Your task to perform on an android device: delete a single message in the gmail app Image 0: 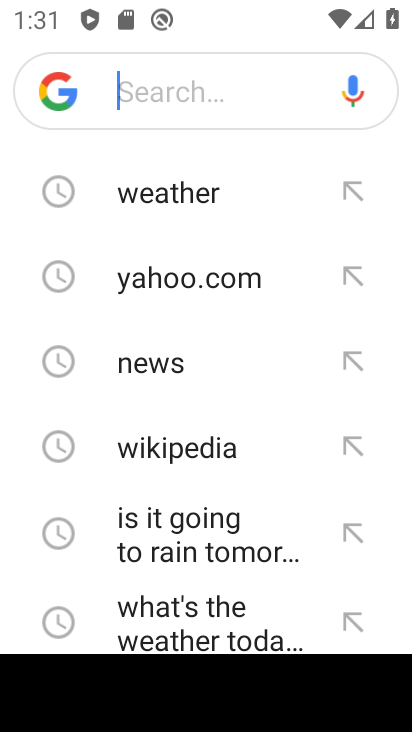
Step 0: press back button
Your task to perform on an android device: delete a single message in the gmail app Image 1: 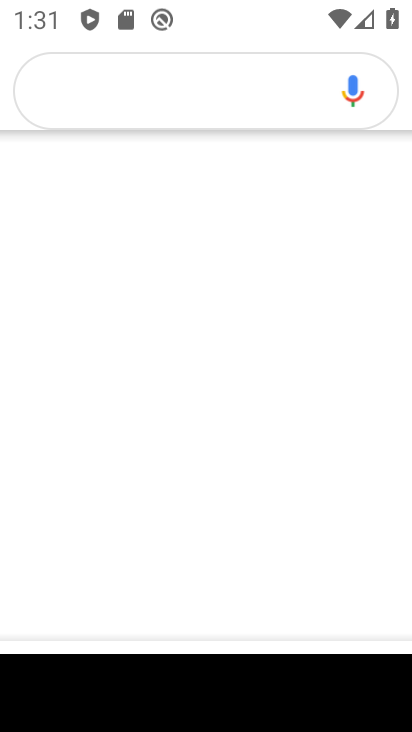
Step 1: press back button
Your task to perform on an android device: delete a single message in the gmail app Image 2: 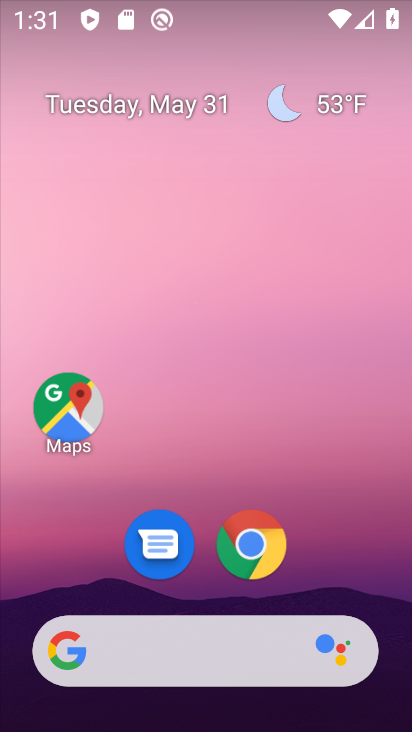
Step 2: drag from (363, 565) to (347, 4)
Your task to perform on an android device: delete a single message in the gmail app Image 3: 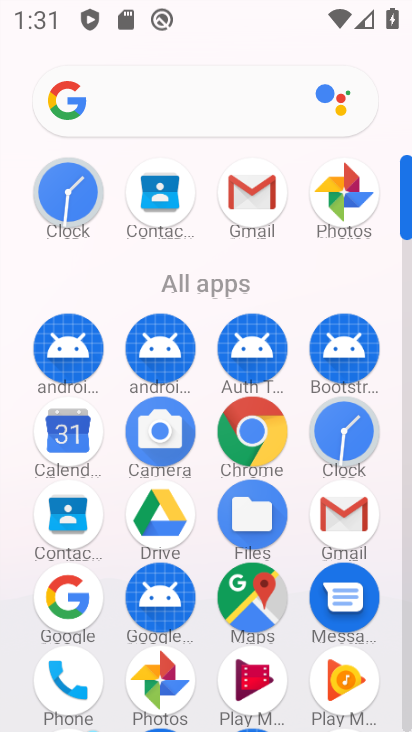
Step 3: click (347, 499)
Your task to perform on an android device: delete a single message in the gmail app Image 4: 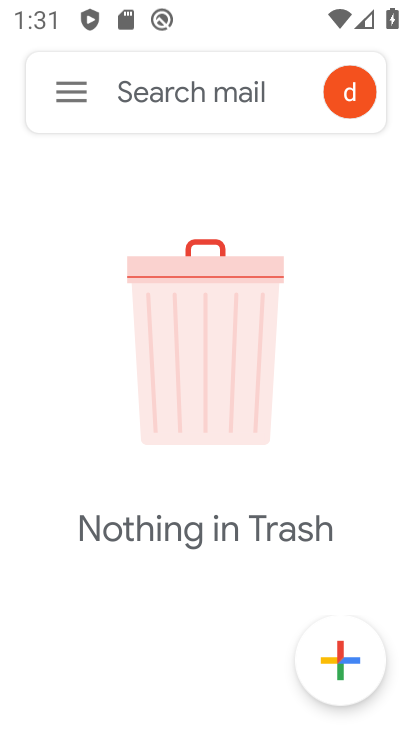
Step 4: click (59, 97)
Your task to perform on an android device: delete a single message in the gmail app Image 5: 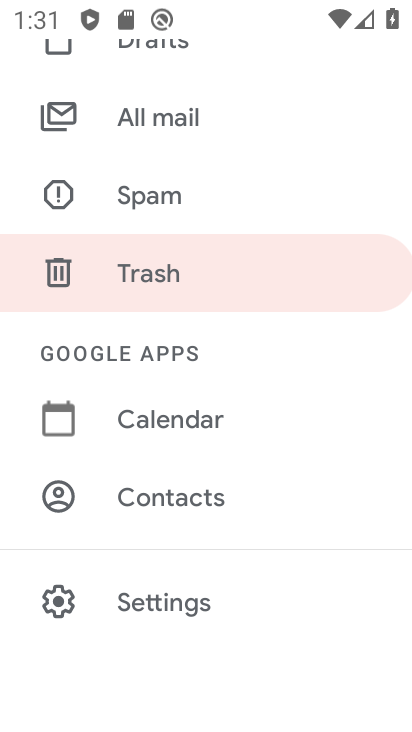
Step 5: drag from (198, 235) to (174, 514)
Your task to perform on an android device: delete a single message in the gmail app Image 6: 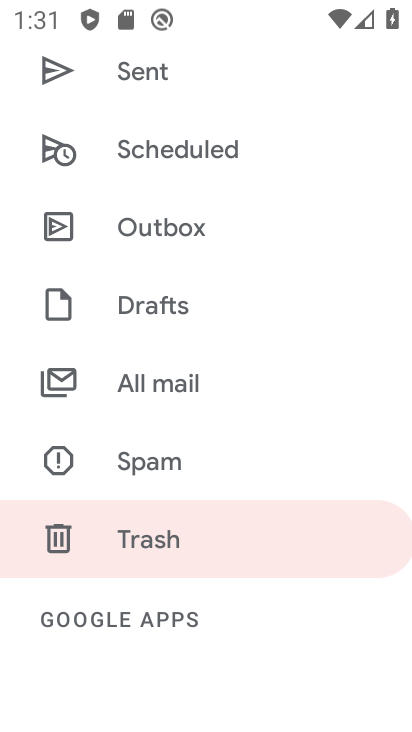
Step 6: drag from (185, 230) to (169, 372)
Your task to perform on an android device: delete a single message in the gmail app Image 7: 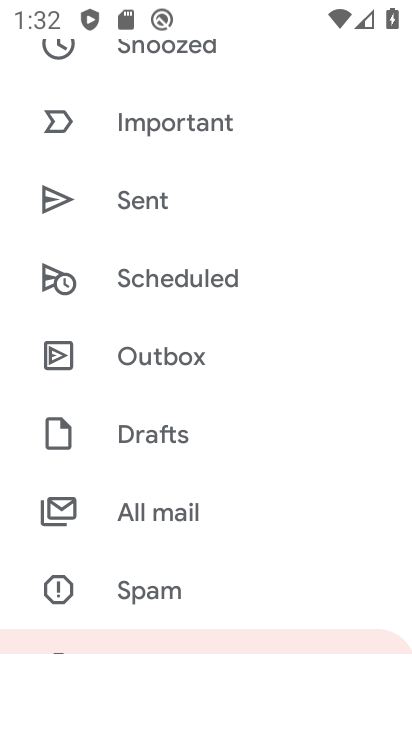
Step 7: click (155, 523)
Your task to perform on an android device: delete a single message in the gmail app Image 8: 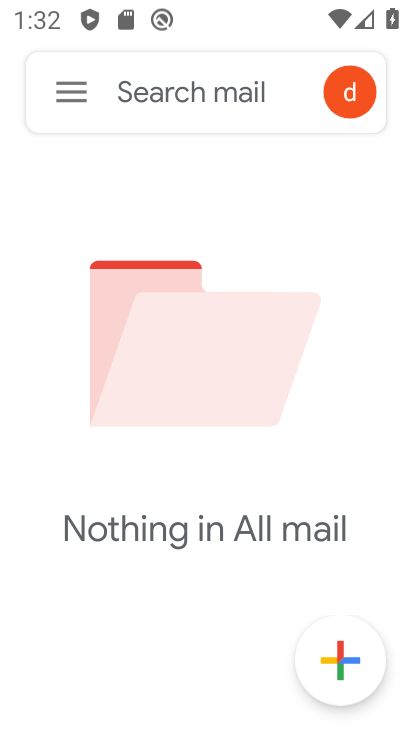
Step 8: task complete